Your task to perform on an android device: toggle javascript in the chrome app Image 0: 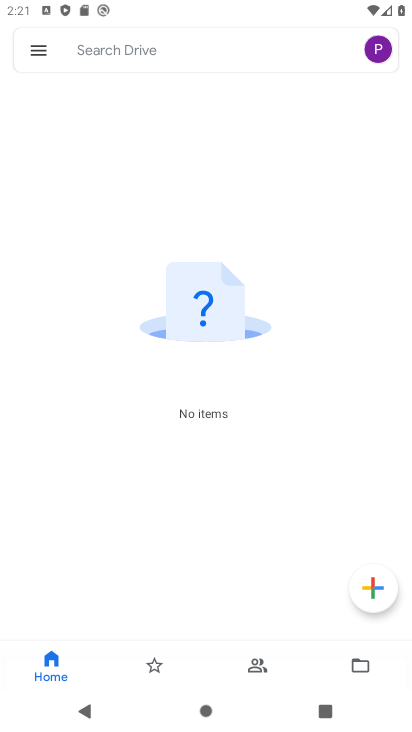
Step 0: press home button
Your task to perform on an android device: toggle javascript in the chrome app Image 1: 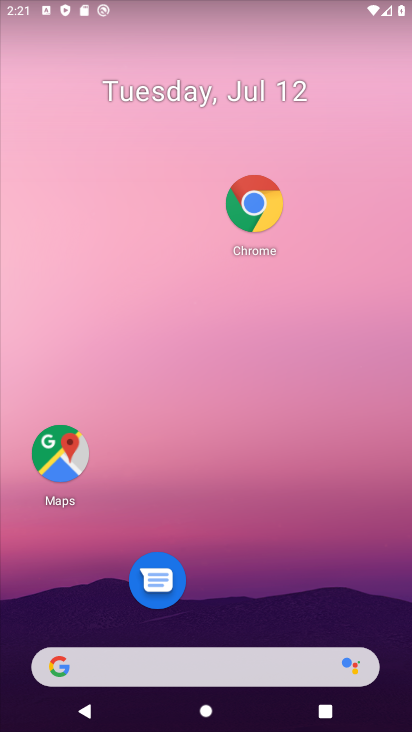
Step 1: click (236, 203)
Your task to perform on an android device: toggle javascript in the chrome app Image 2: 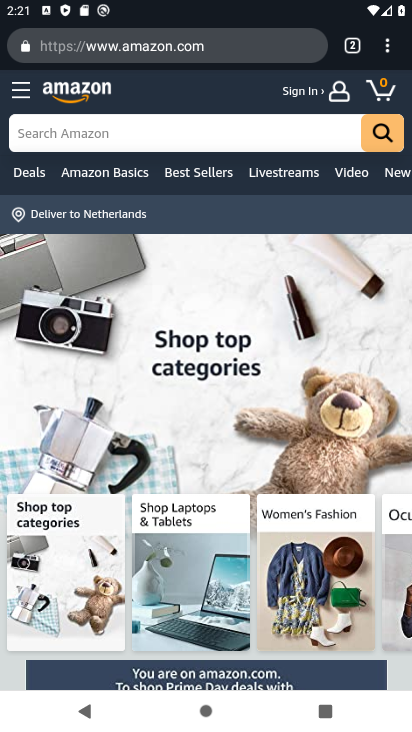
Step 2: click (379, 59)
Your task to perform on an android device: toggle javascript in the chrome app Image 3: 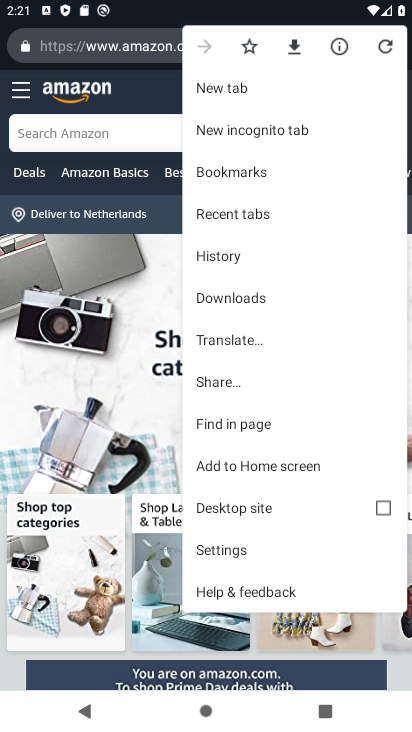
Step 3: click (232, 545)
Your task to perform on an android device: toggle javascript in the chrome app Image 4: 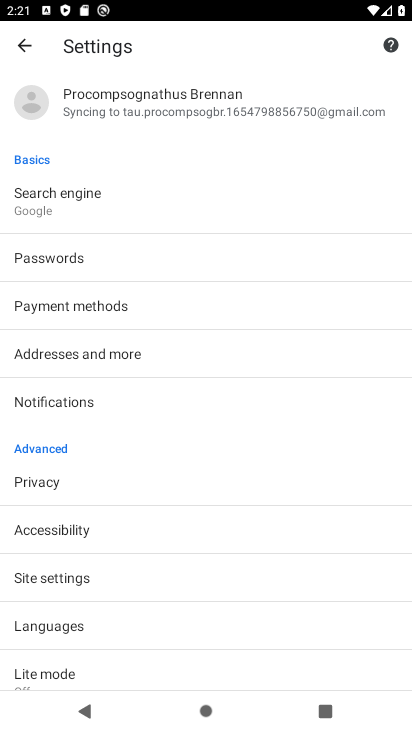
Step 4: drag from (118, 649) to (145, 220)
Your task to perform on an android device: toggle javascript in the chrome app Image 5: 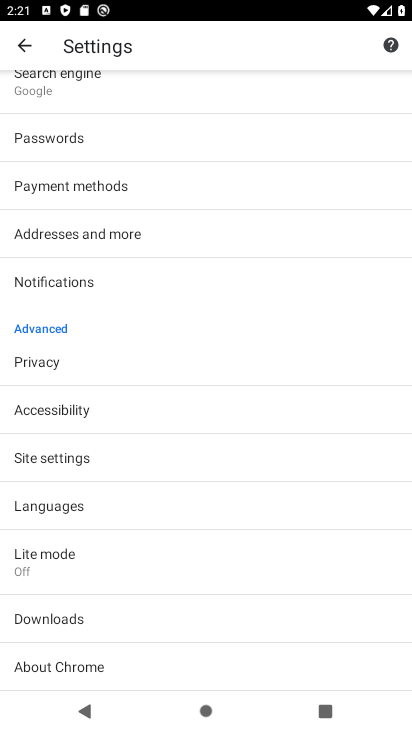
Step 5: click (114, 460)
Your task to perform on an android device: toggle javascript in the chrome app Image 6: 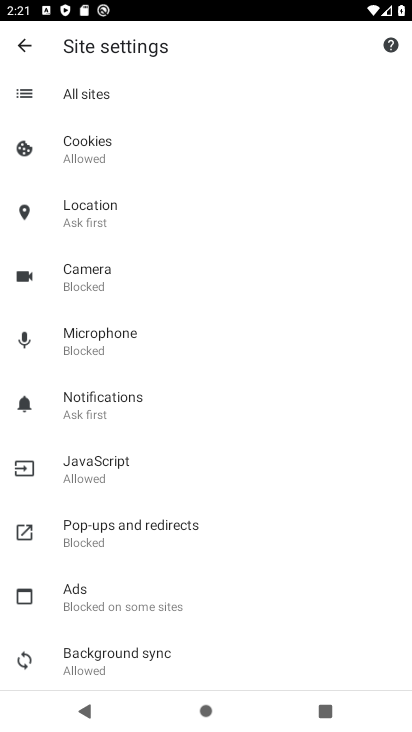
Step 6: click (114, 460)
Your task to perform on an android device: toggle javascript in the chrome app Image 7: 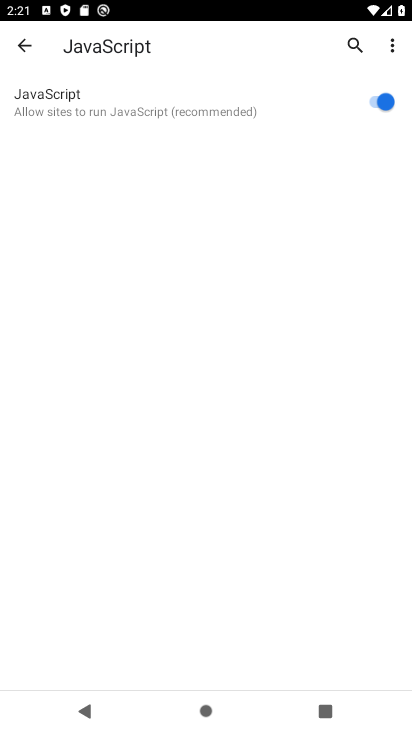
Step 7: click (379, 99)
Your task to perform on an android device: toggle javascript in the chrome app Image 8: 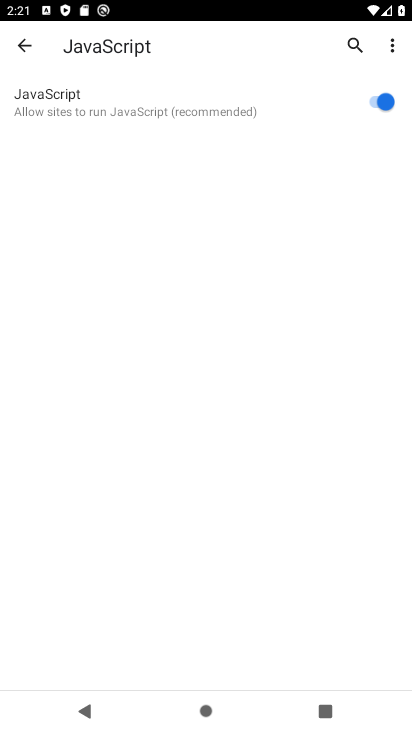
Step 8: click (379, 99)
Your task to perform on an android device: toggle javascript in the chrome app Image 9: 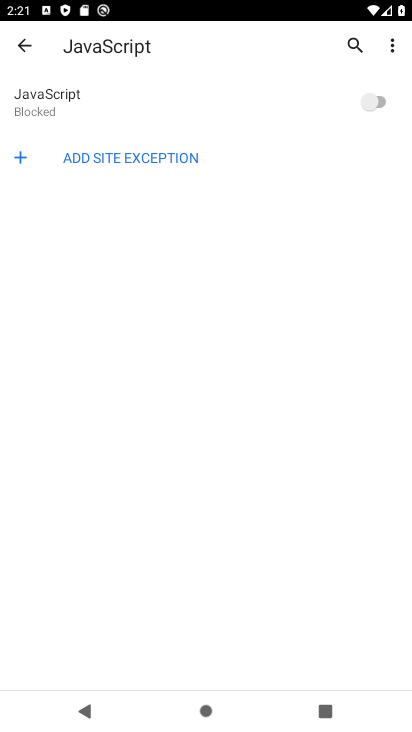
Step 9: click (379, 99)
Your task to perform on an android device: toggle javascript in the chrome app Image 10: 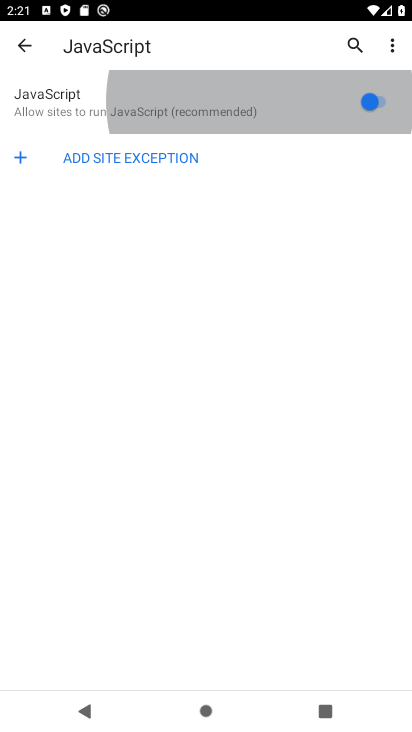
Step 10: click (379, 99)
Your task to perform on an android device: toggle javascript in the chrome app Image 11: 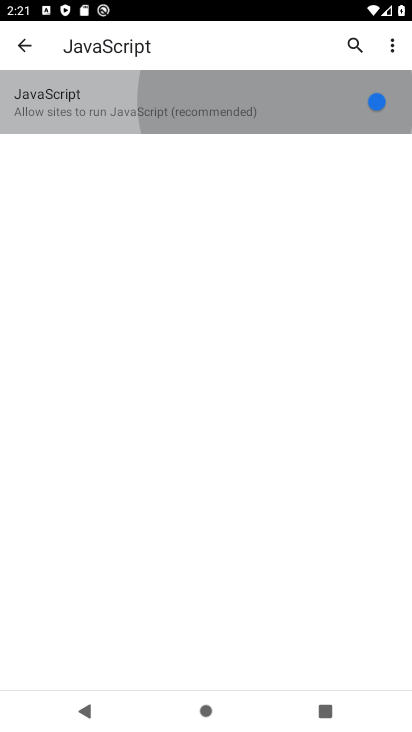
Step 11: click (379, 99)
Your task to perform on an android device: toggle javascript in the chrome app Image 12: 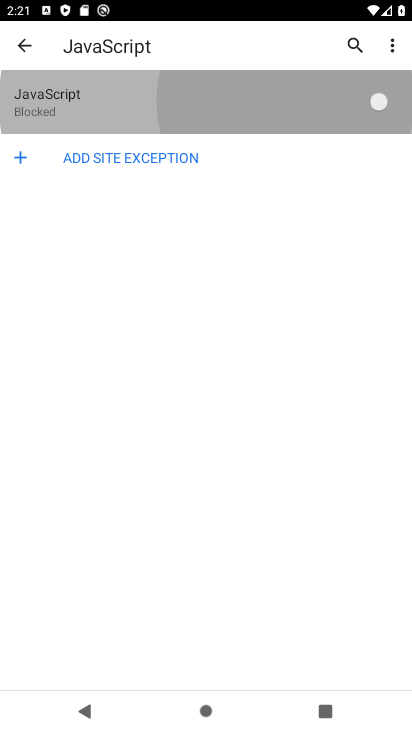
Step 12: click (379, 99)
Your task to perform on an android device: toggle javascript in the chrome app Image 13: 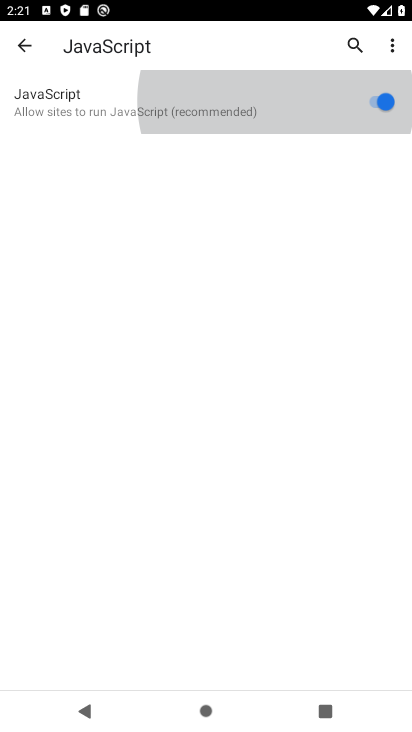
Step 13: click (379, 99)
Your task to perform on an android device: toggle javascript in the chrome app Image 14: 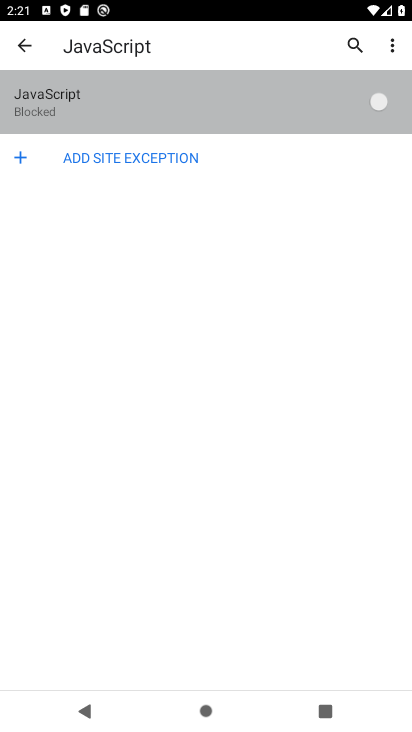
Step 14: click (379, 99)
Your task to perform on an android device: toggle javascript in the chrome app Image 15: 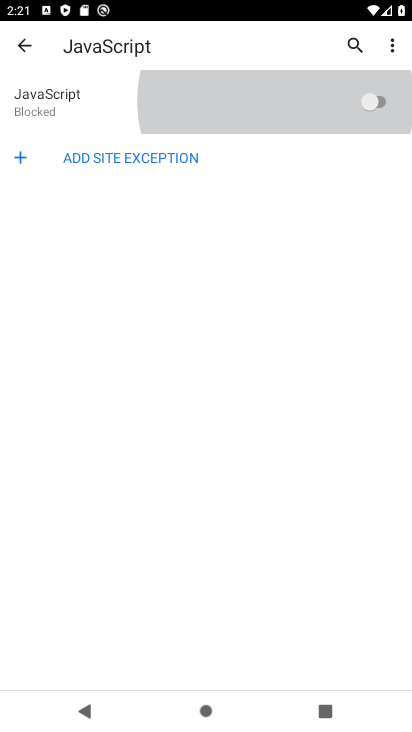
Step 15: click (379, 99)
Your task to perform on an android device: toggle javascript in the chrome app Image 16: 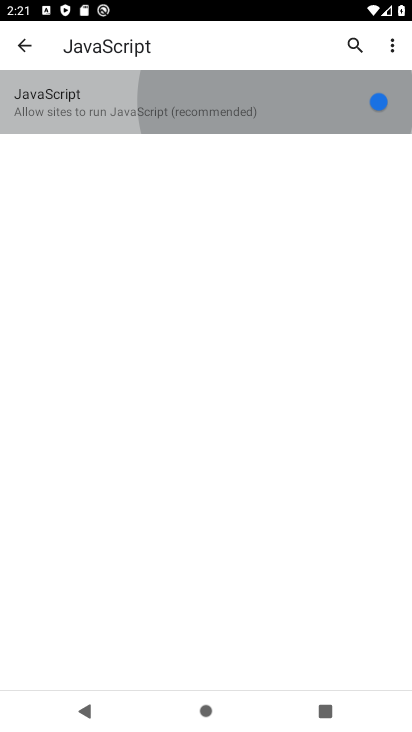
Step 16: click (379, 99)
Your task to perform on an android device: toggle javascript in the chrome app Image 17: 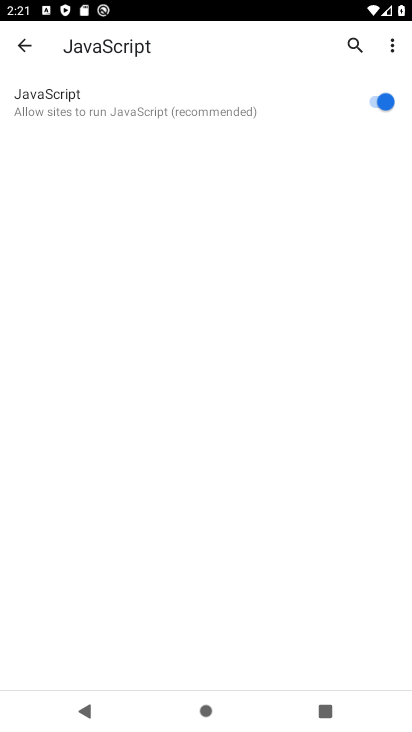
Step 17: task complete